Your task to perform on an android device: turn off improve location accuracy Image 0: 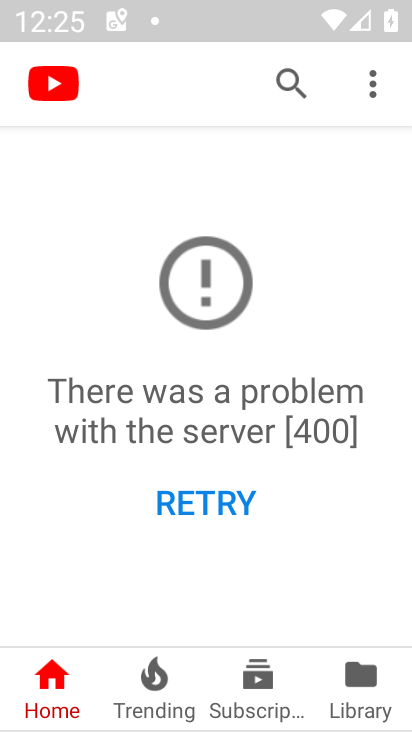
Step 0: press home button
Your task to perform on an android device: turn off improve location accuracy Image 1: 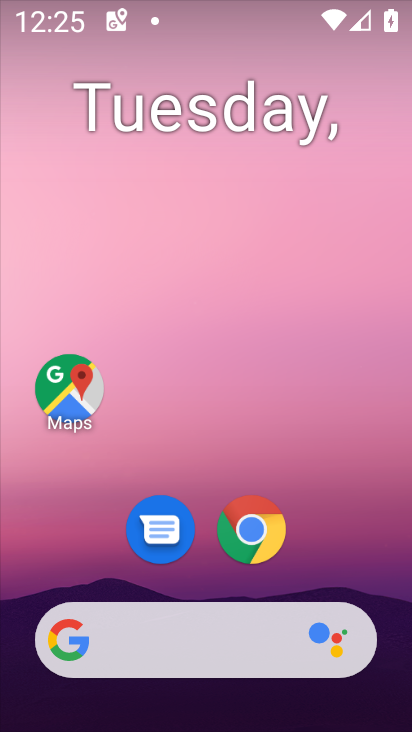
Step 1: drag from (207, 601) to (283, 0)
Your task to perform on an android device: turn off improve location accuracy Image 2: 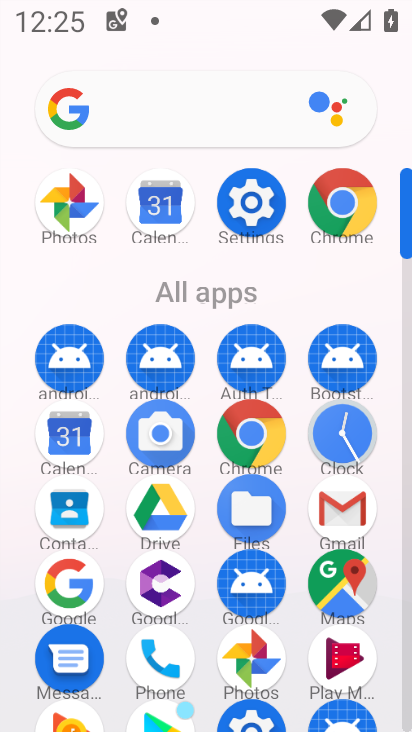
Step 2: click (246, 191)
Your task to perform on an android device: turn off improve location accuracy Image 3: 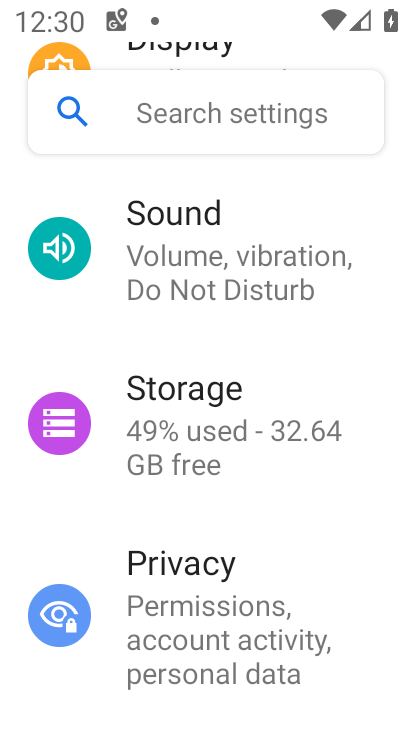
Step 3: drag from (182, 229) to (222, 665)
Your task to perform on an android device: turn off improve location accuracy Image 4: 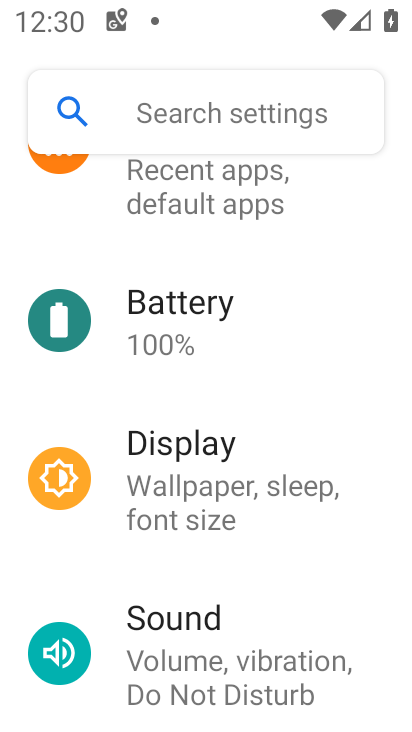
Step 4: drag from (260, 267) to (162, 695)
Your task to perform on an android device: turn off improve location accuracy Image 5: 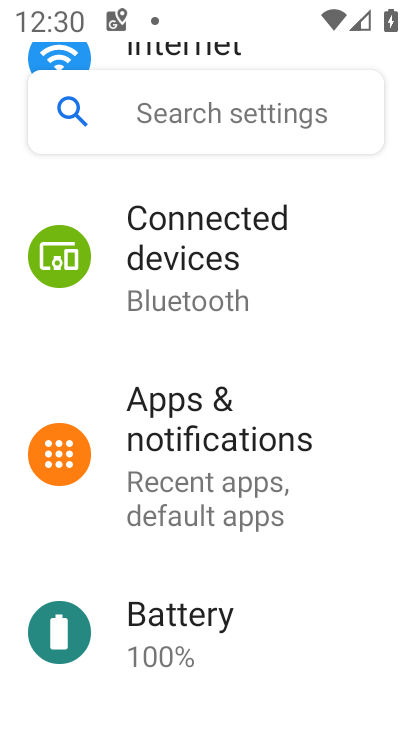
Step 5: drag from (180, 657) to (273, 111)
Your task to perform on an android device: turn off improve location accuracy Image 6: 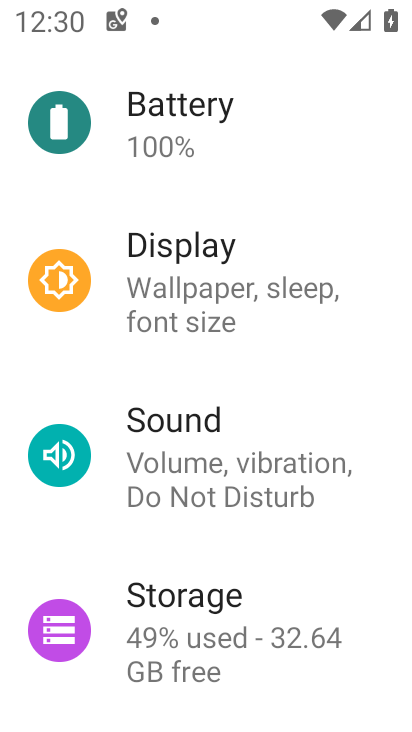
Step 6: drag from (213, 652) to (273, 139)
Your task to perform on an android device: turn off improve location accuracy Image 7: 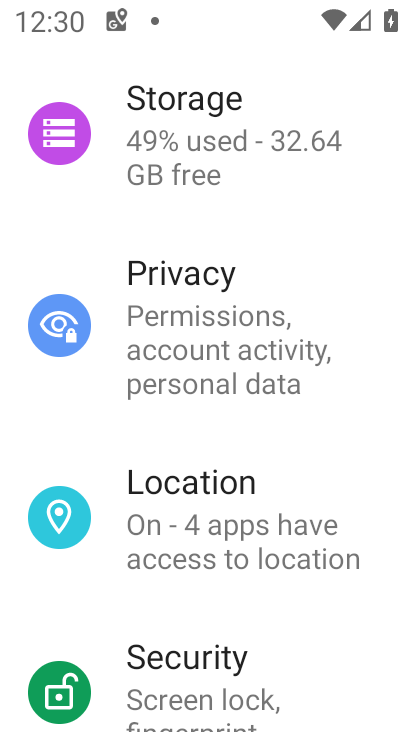
Step 7: click (198, 510)
Your task to perform on an android device: turn off improve location accuracy Image 8: 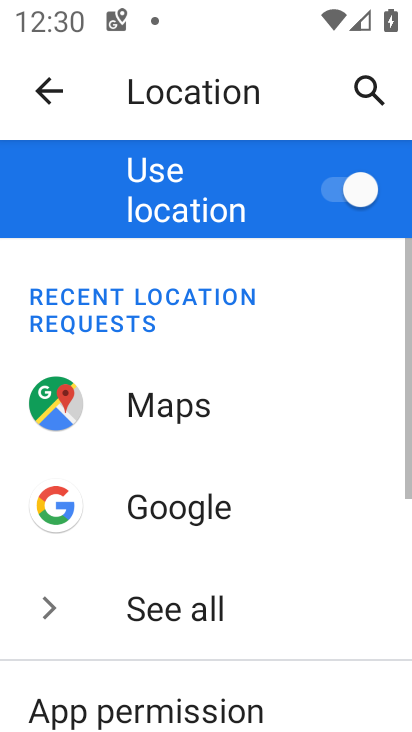
Step 8: drag from (171, 615) to (252, 86)
Your task to perform on an android device: turn off improve location accuracy Image 9: 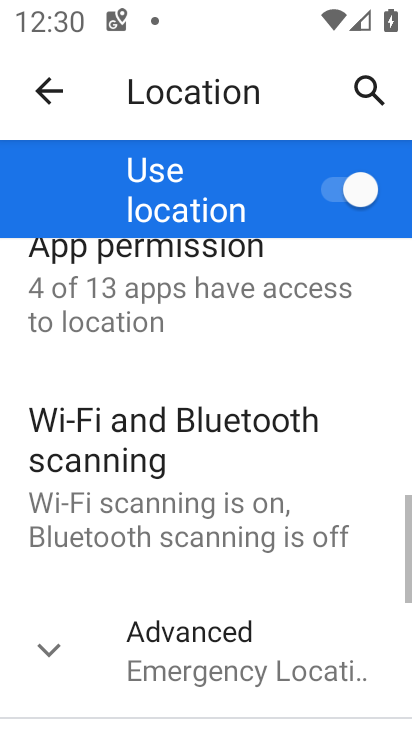
Step 9: click (179, 639)
Your task to perform on an android device: turn off improve location accuracy Image 10: 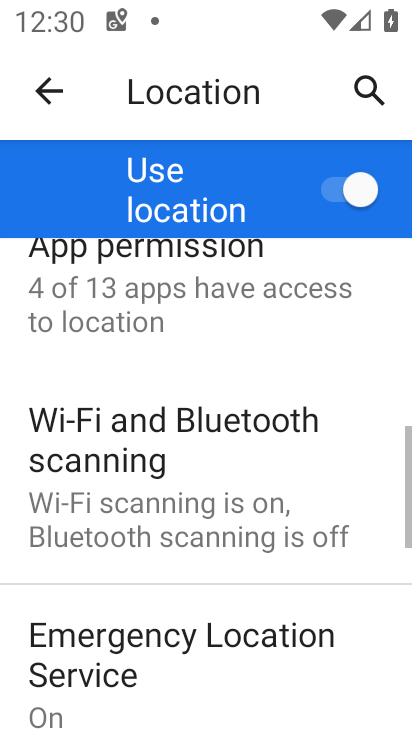
Step 10: drag from (152, 653) to (272, 103)
Your task to perform on an android device: turn off improve location accuracy Image 11: 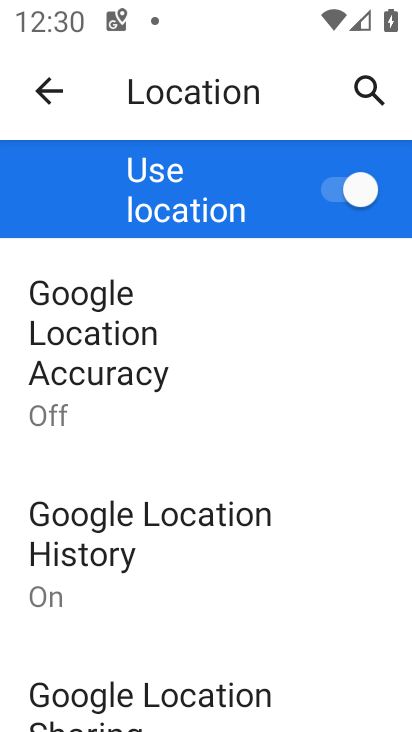
Step 11: click (102, 329)
Your task to perform on an android device: turn off improve location accuracy Image 12: 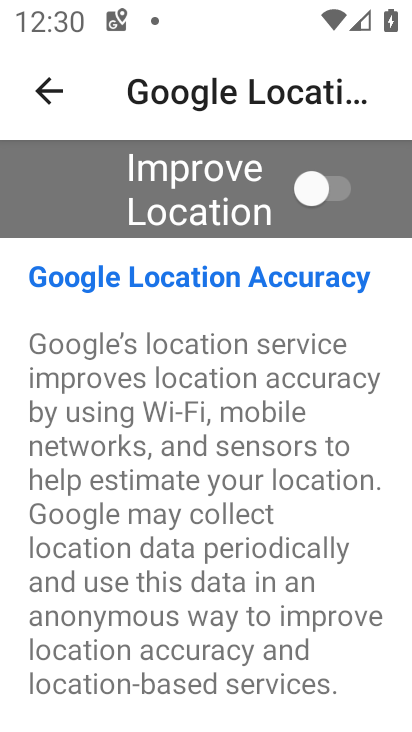
Step 12: task complete